Your task to perform on an android device: What time is it in New York? Image 0: 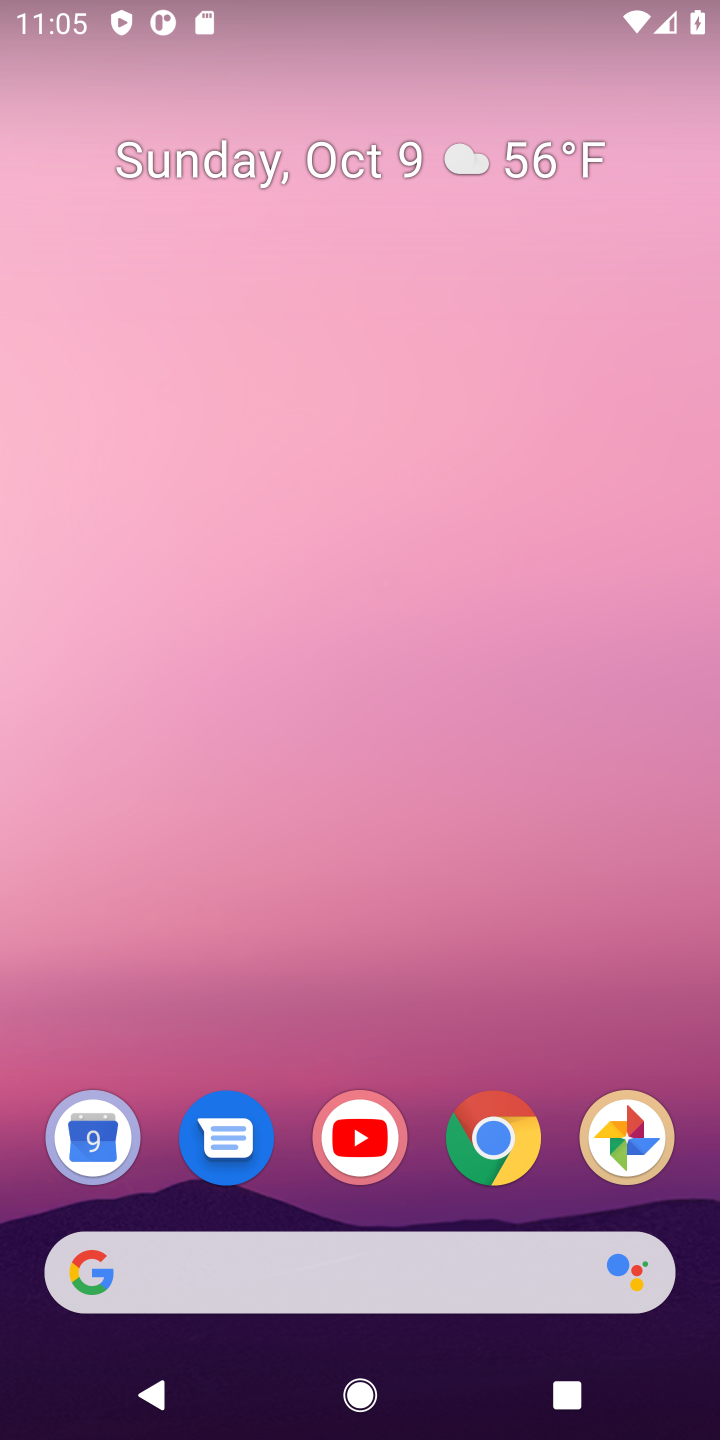
Step 0: drag from (430, 1058) to (369, 63)
Your task to perform on an android device: What time is it in New York? Image 1: 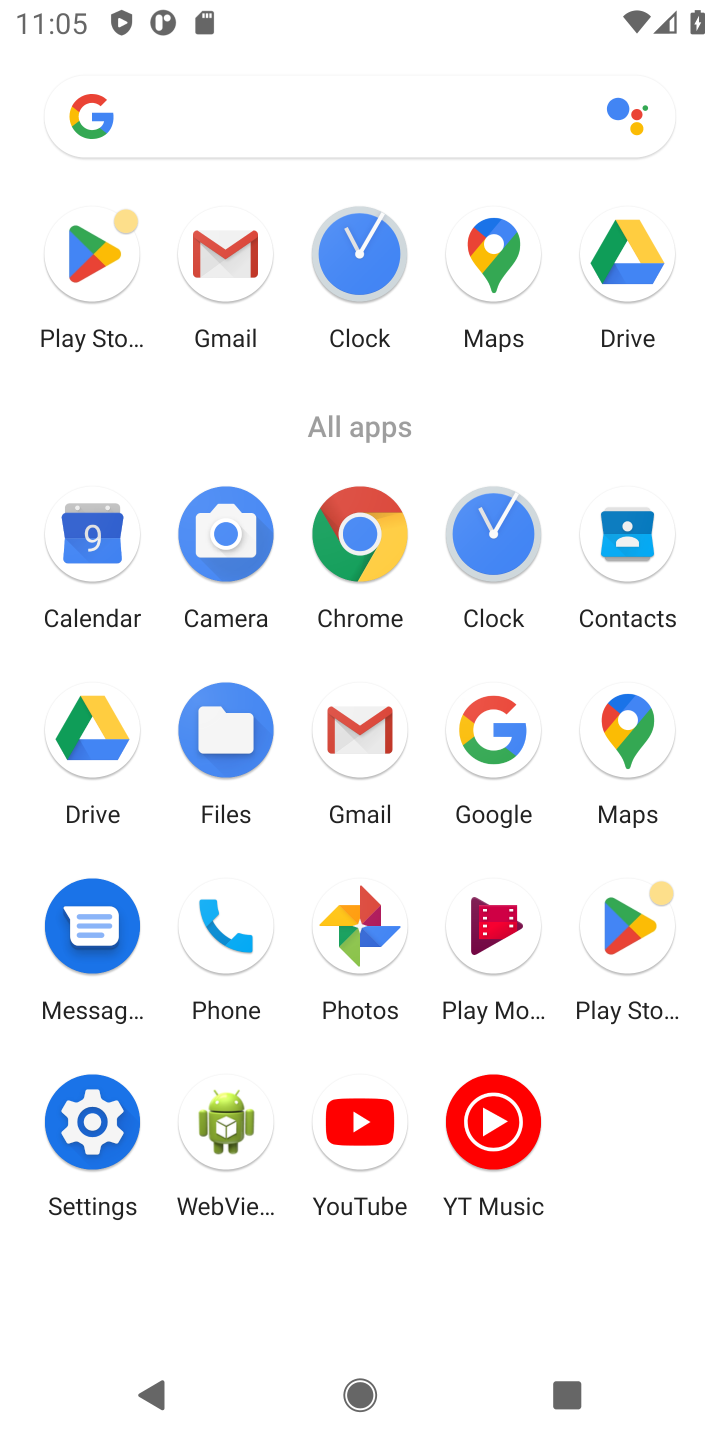
Step 1: click (347, 545)
Your task to perform on an android device: What time is it in New York? Image 2: 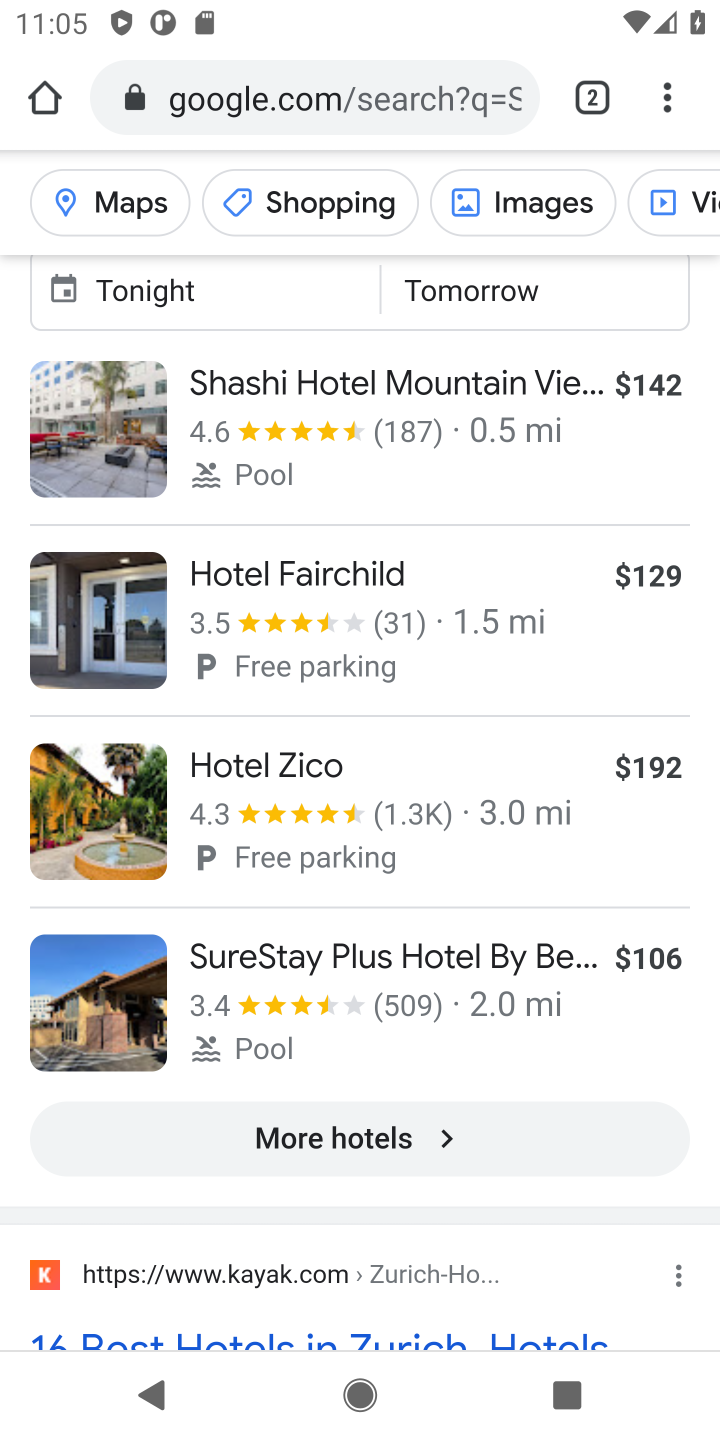
Step 2: click (295, 86)
Your task to perform on an android device: What time is it in New York? Image 3: 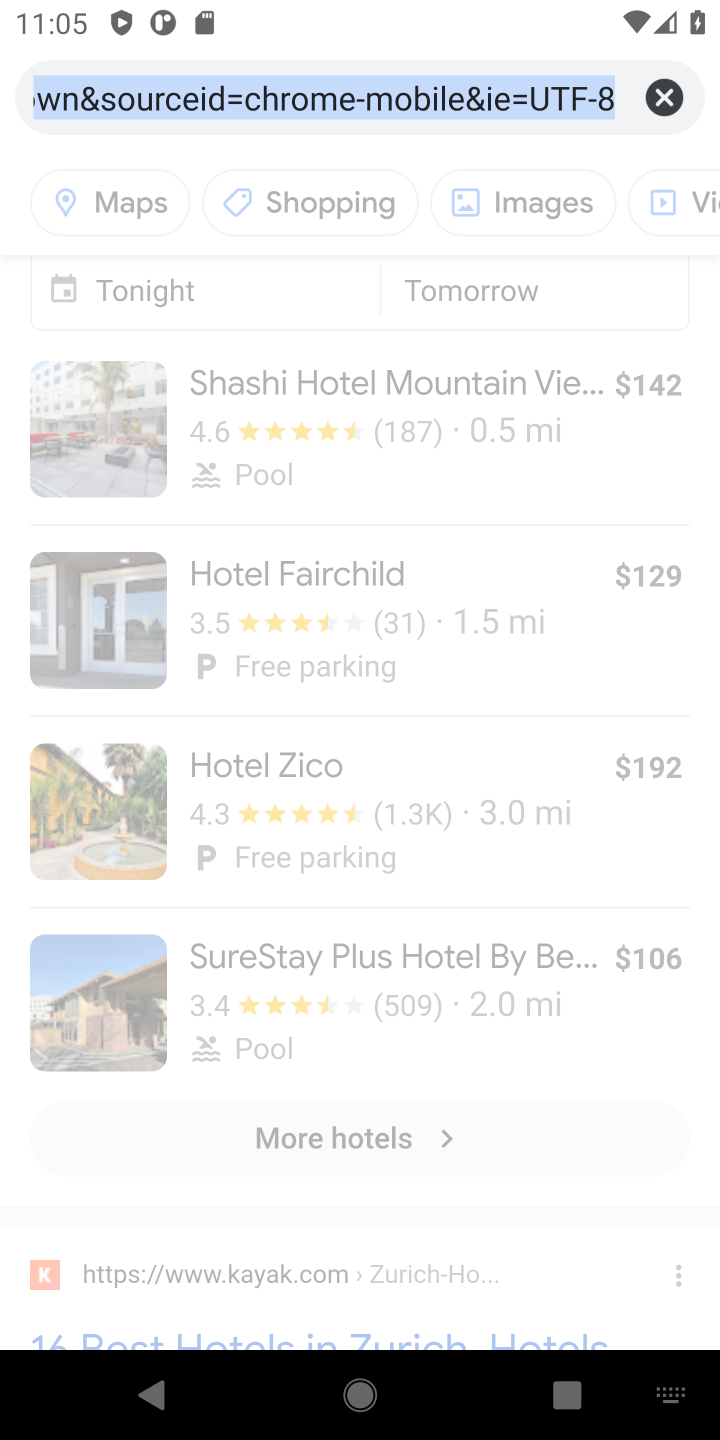
Step 3: click (675, 92)
Your task to perform on an android device: What time is it in New York? Image 4: 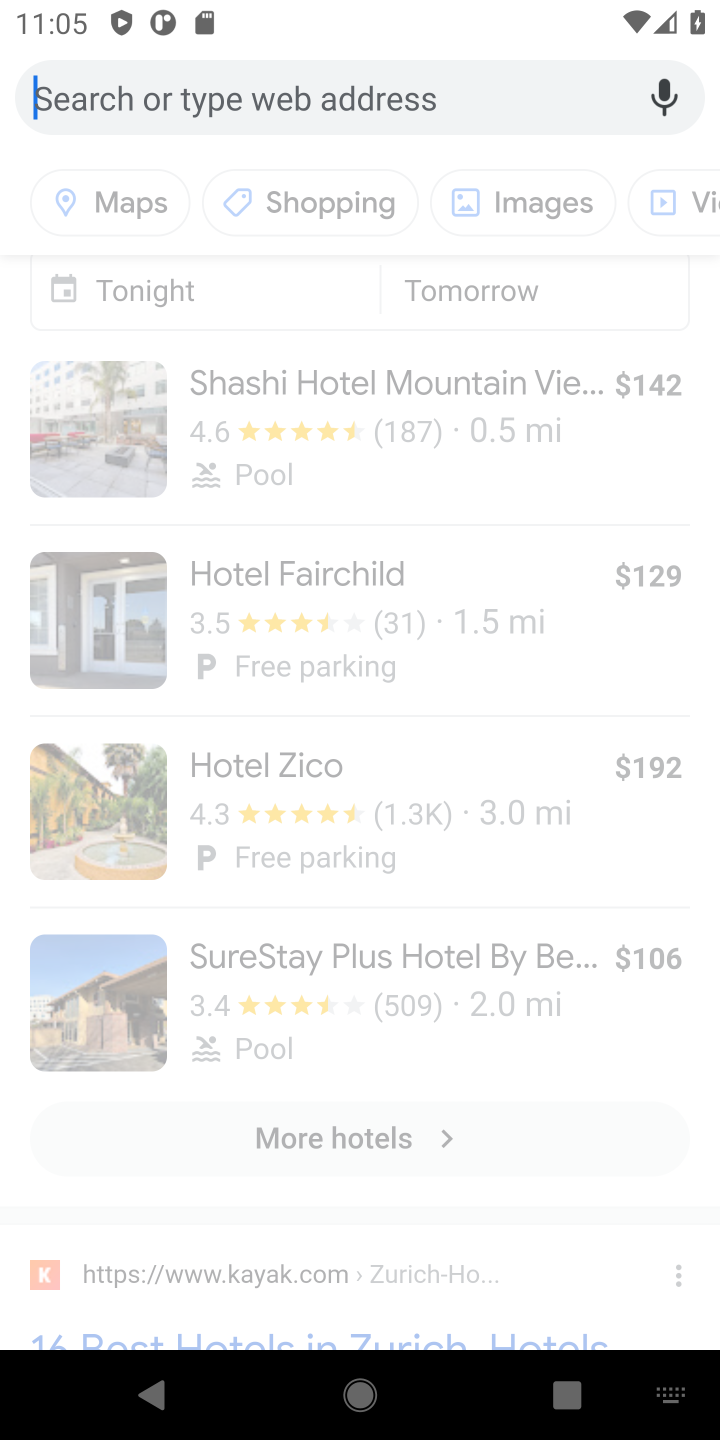
Step 4: type "What time is it in New York?"
Your task to perform on an android device: What time is it in New York? Image 5: 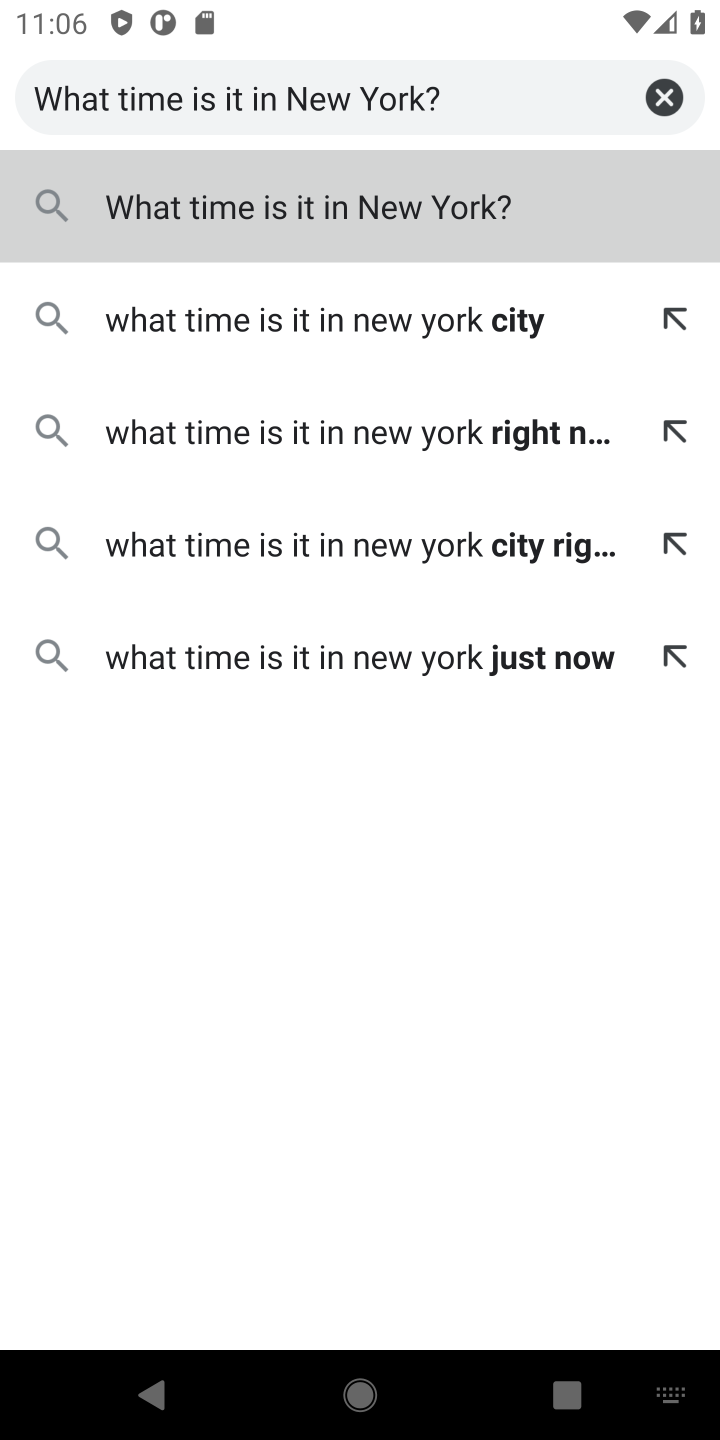
Step 5: click (173, 199)
Your task to perform on an android device: What time is it in New York? Image 6: 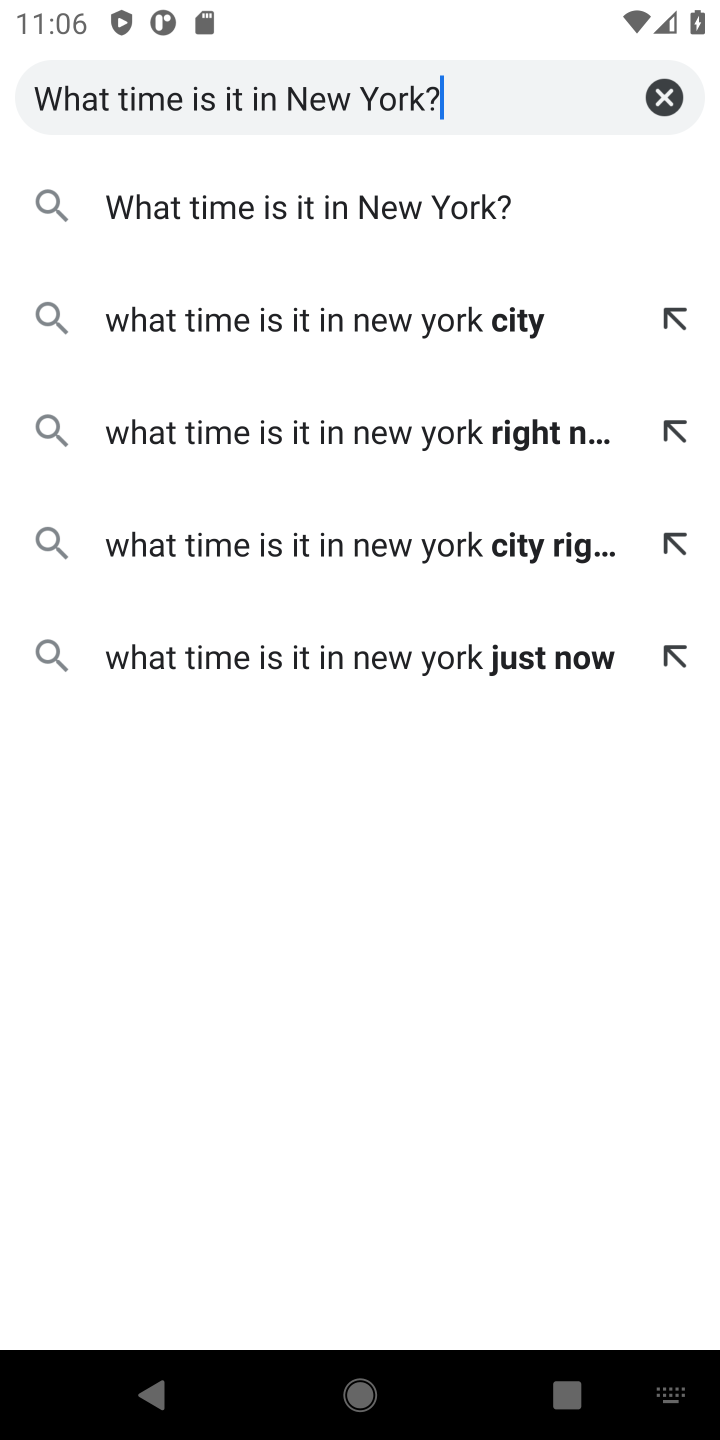
Step 6: click (447, 209)
Your task to perform on an android device: What time is it in New York? Image 7: 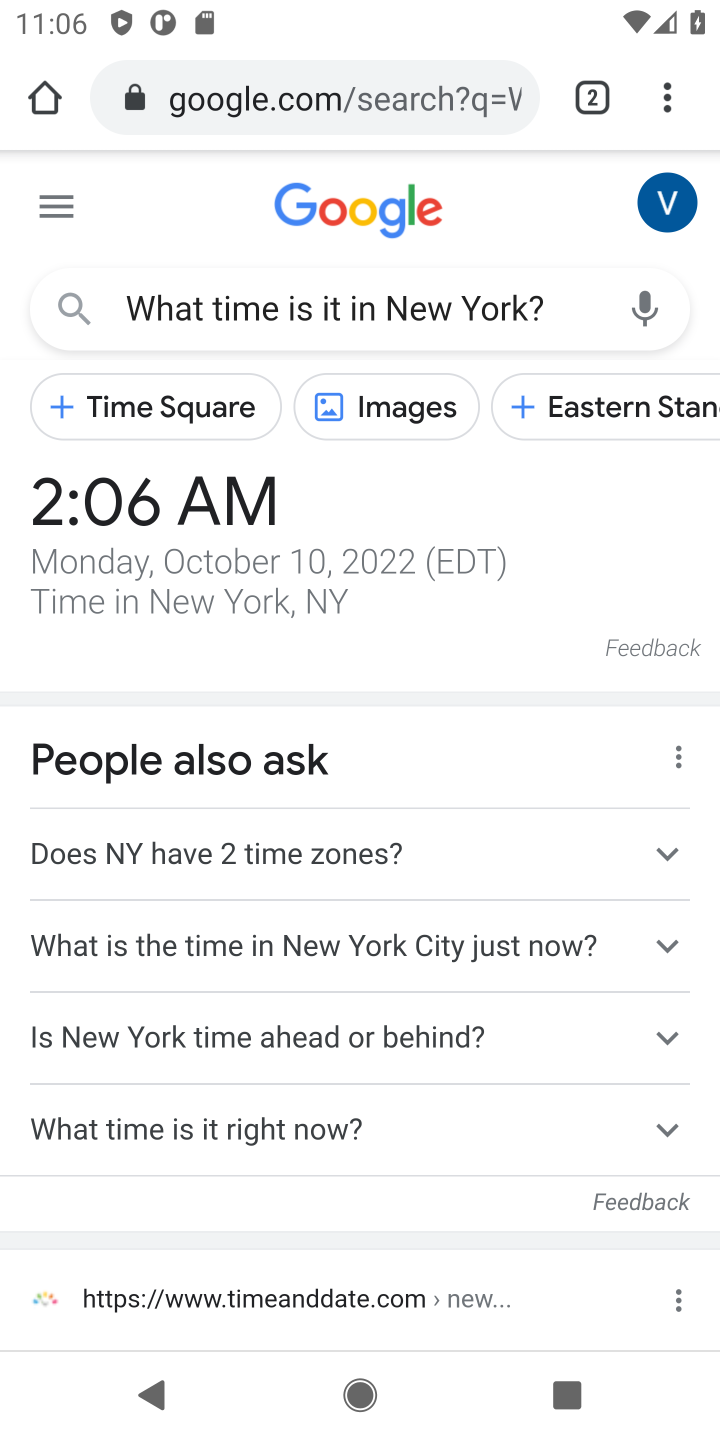
Step 7: task complete